Your task to perform on an android device: Open CNN.com Image 0: 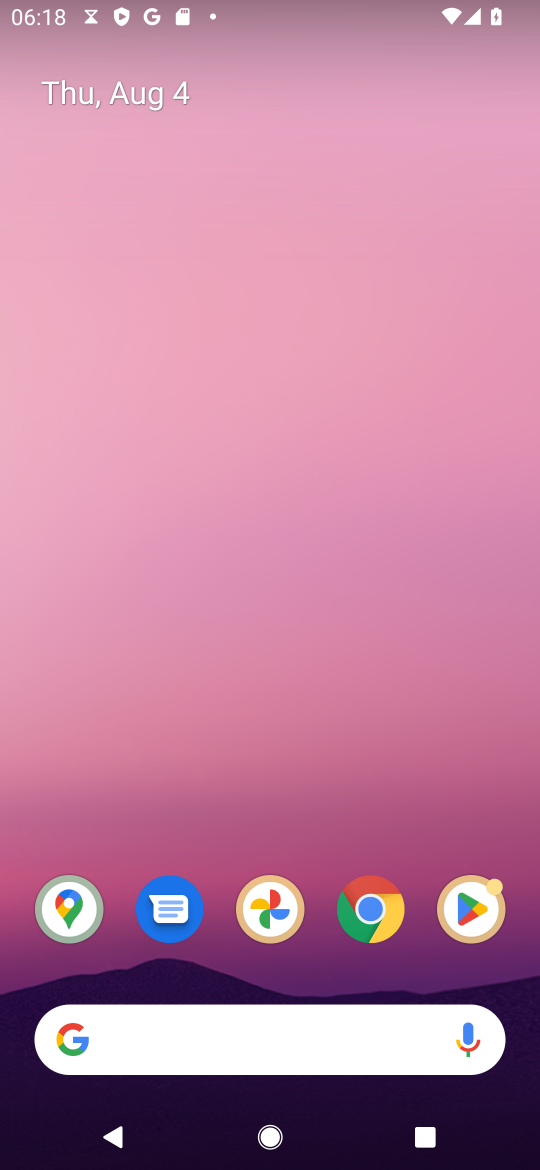
Step 0: click (378, 913)
Your task to perform on an android device: Open CNN.com Image 1: 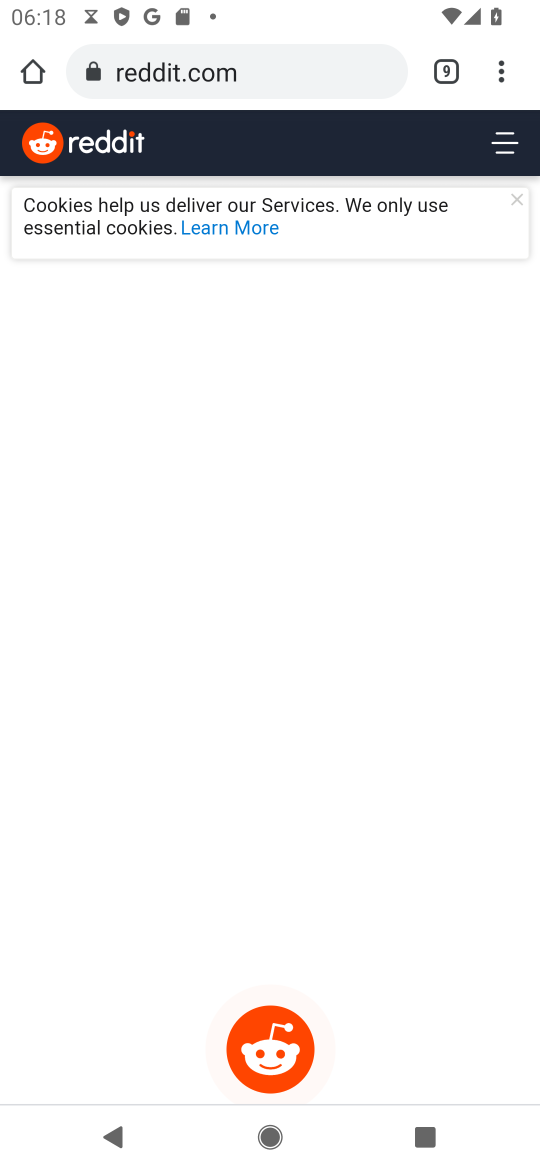
Step 1: drag from (498, 64) to (281, 234)
Your task to perform on an android device: Open CNN.com Image 2: 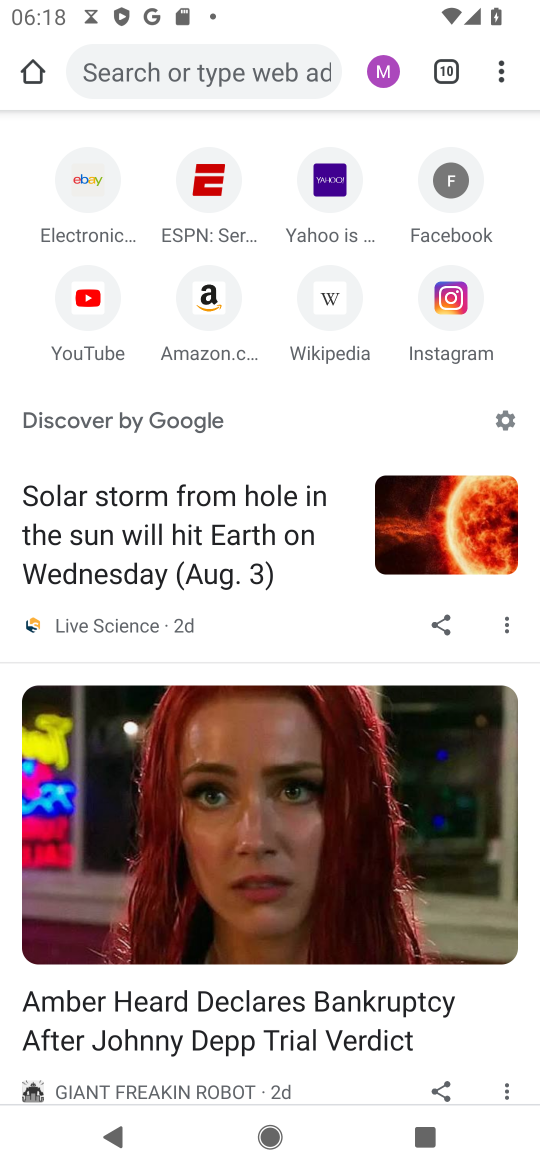
Step 2: click (166, 67)
Your task to perform on an android device: Open CNN.com Image 3: 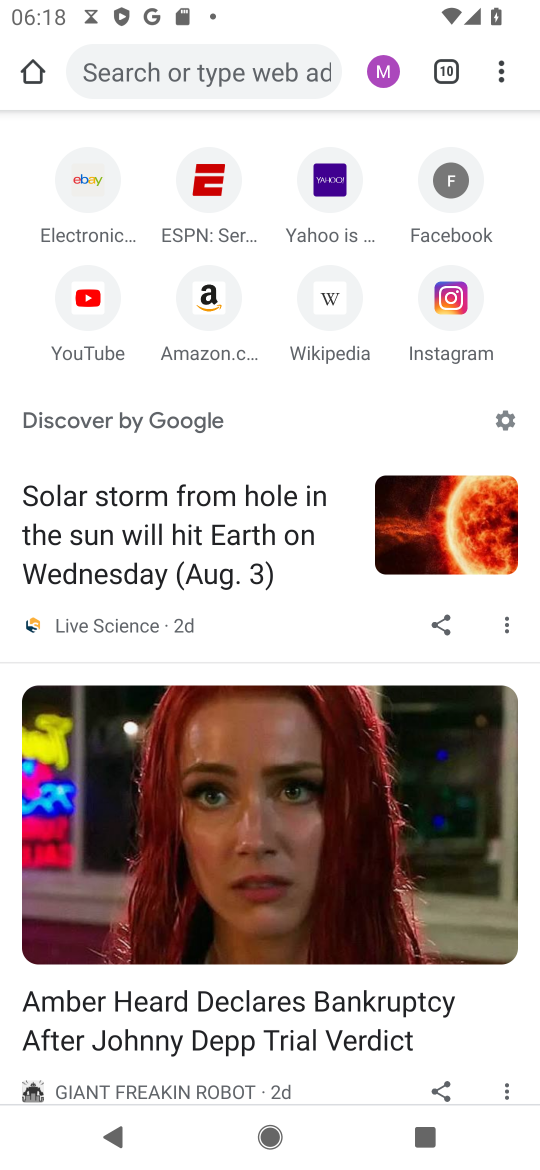
Step 3: click (178, 69)
Your task to perform on an android device: Open CNN.com Image 4: 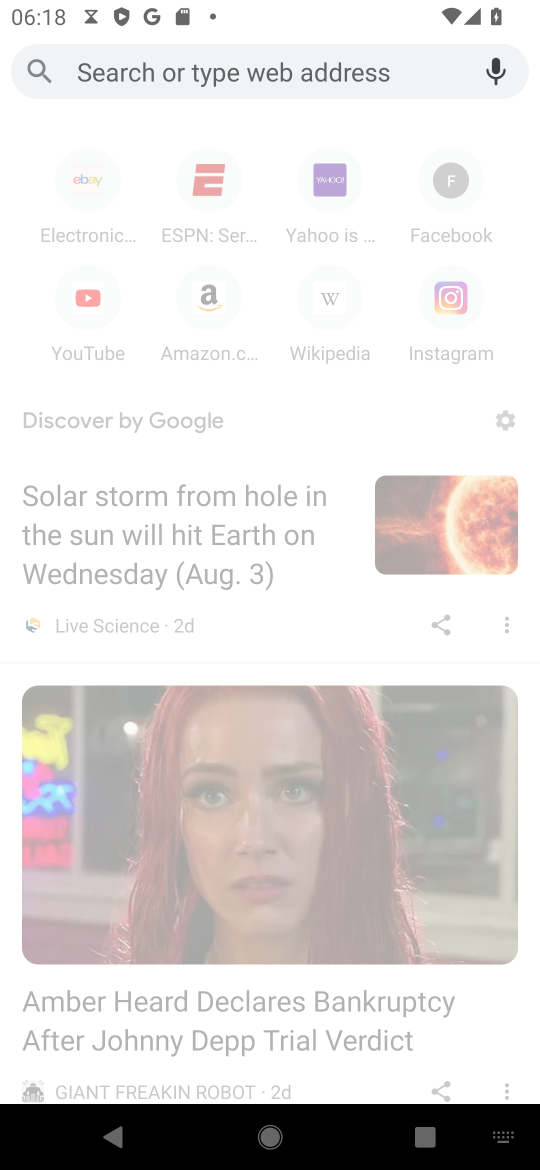
Step 4: type "cnn.com"
Your task to perform on an android device: Open CNN.com Image 5: 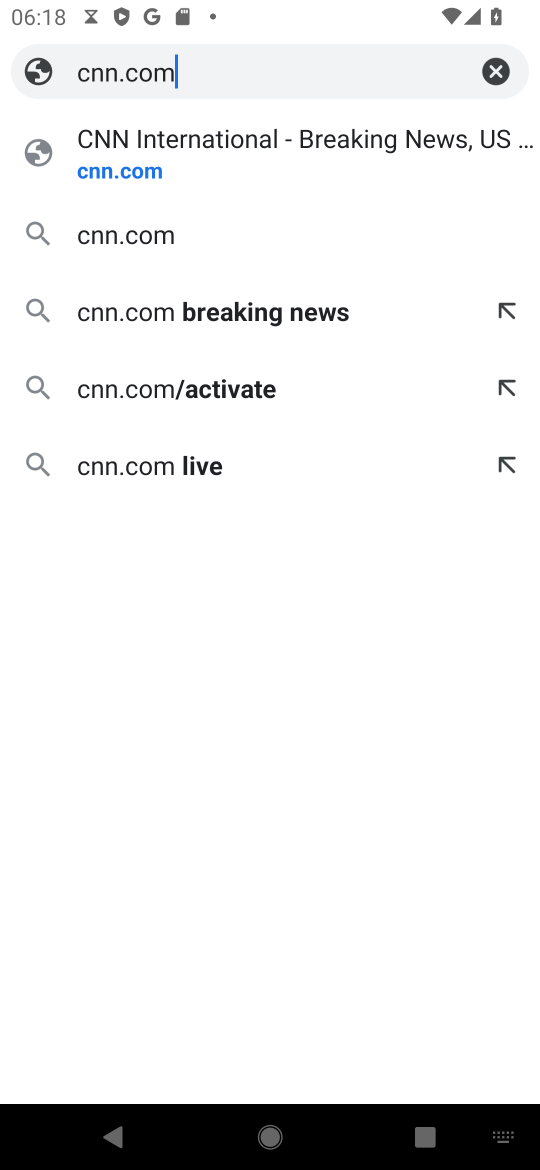
Step 5: click (265, 141)
Your task to perform on an android device: Open CNN.com Image 6: 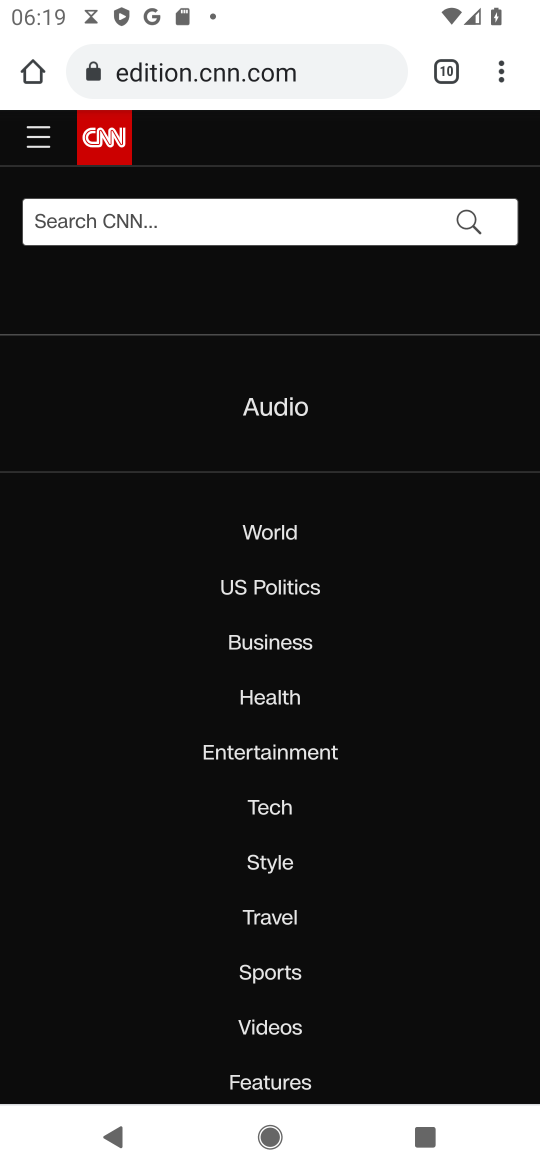
Step 6: task complete